Your task to perform on an android device: Search for the new ikea dresser Image 0: 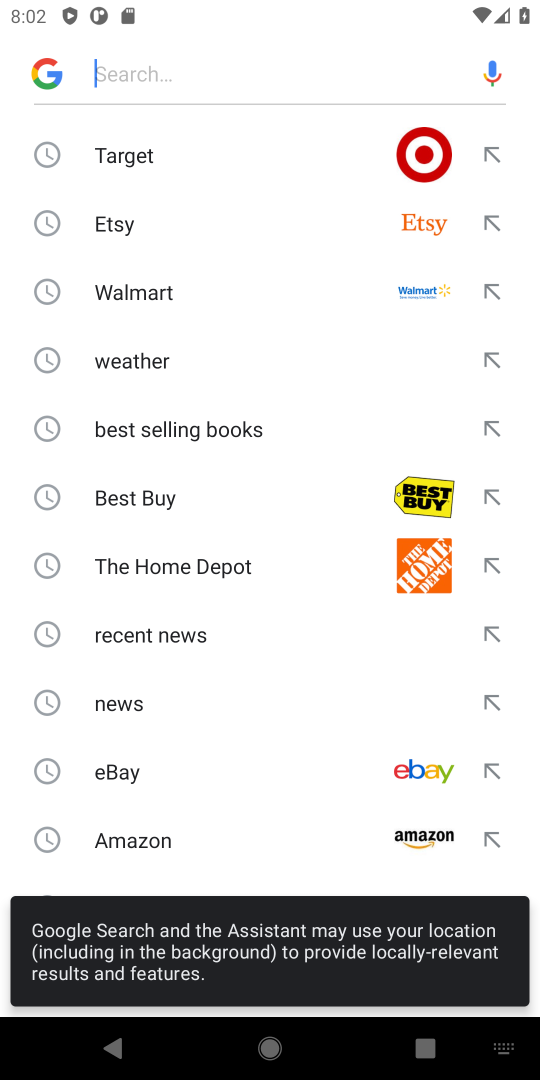
Step 0: press home button
Your task to perform on an android device: Search for the new ikea dresser Image 1: 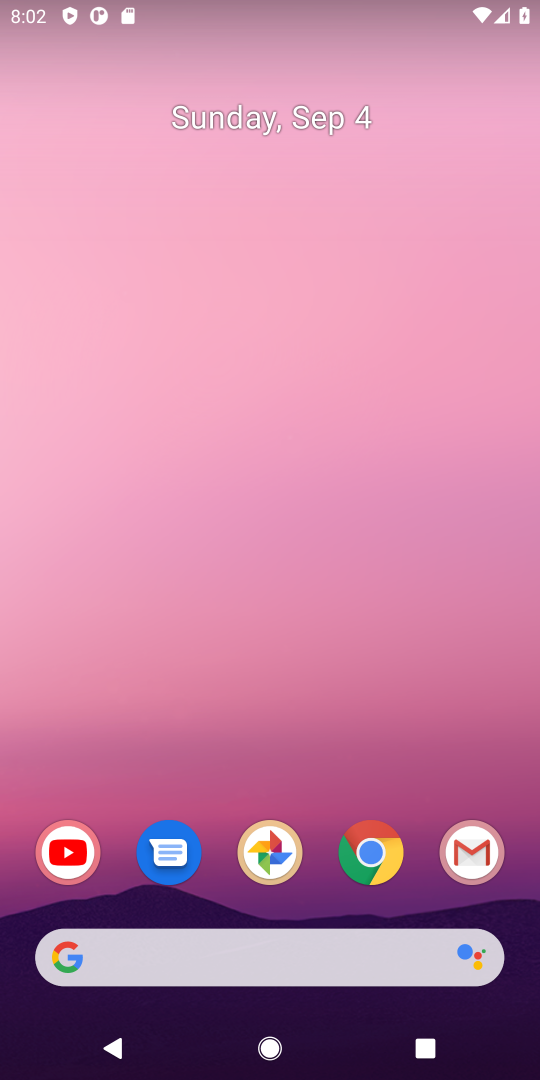
Step 1: drag from (330, 693) to (217, 144)
Your task to perform on an android device: Search for the new ikea dresser Image 2: 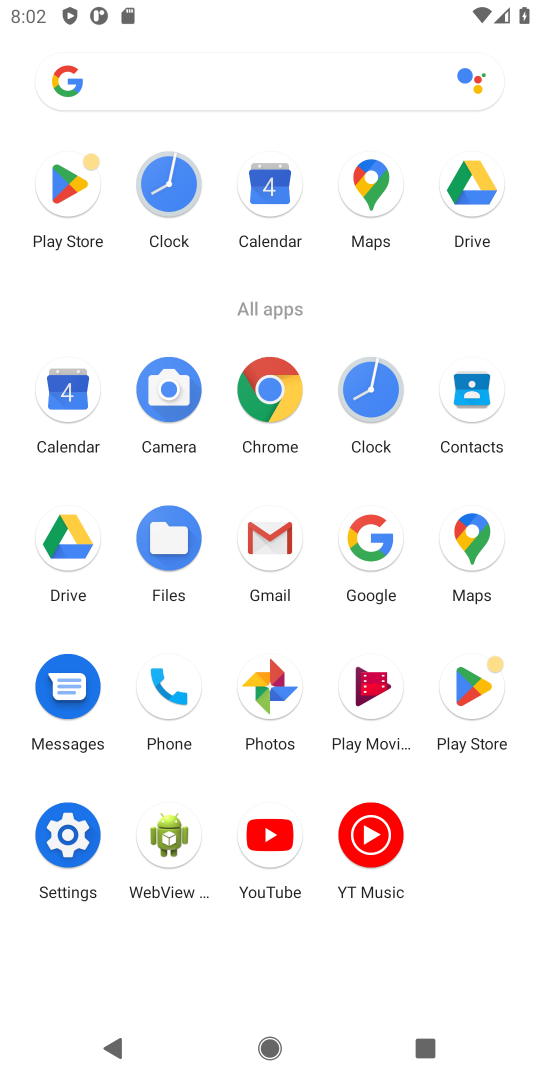
Step 2: click (368, 530)
Your task to perform on an android device: Search for the new ikea dresser Image 3: 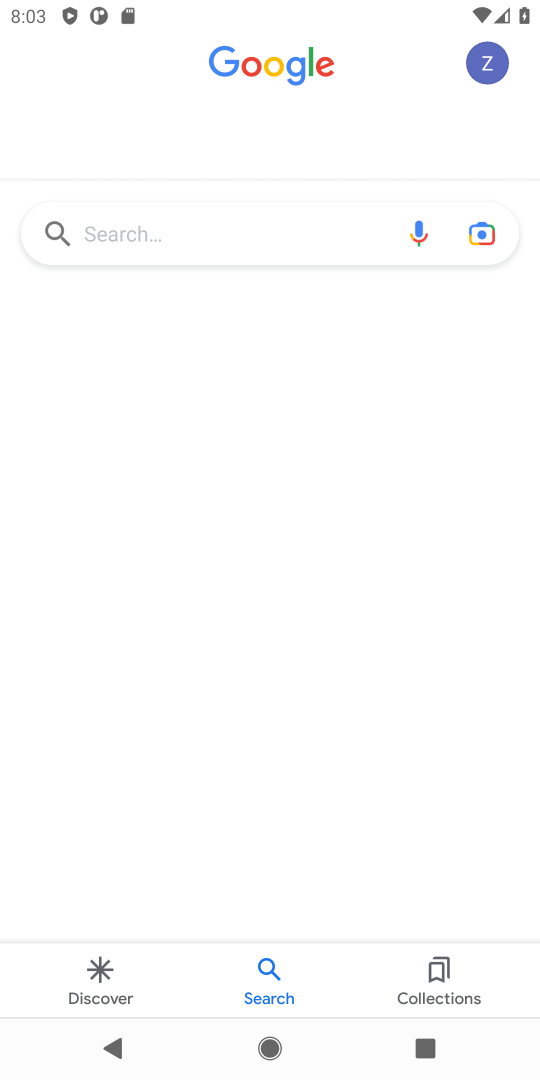
Step 3: click (204, 247)
Your task to perform on an android device: Search for the new ikea dresser Image 4: 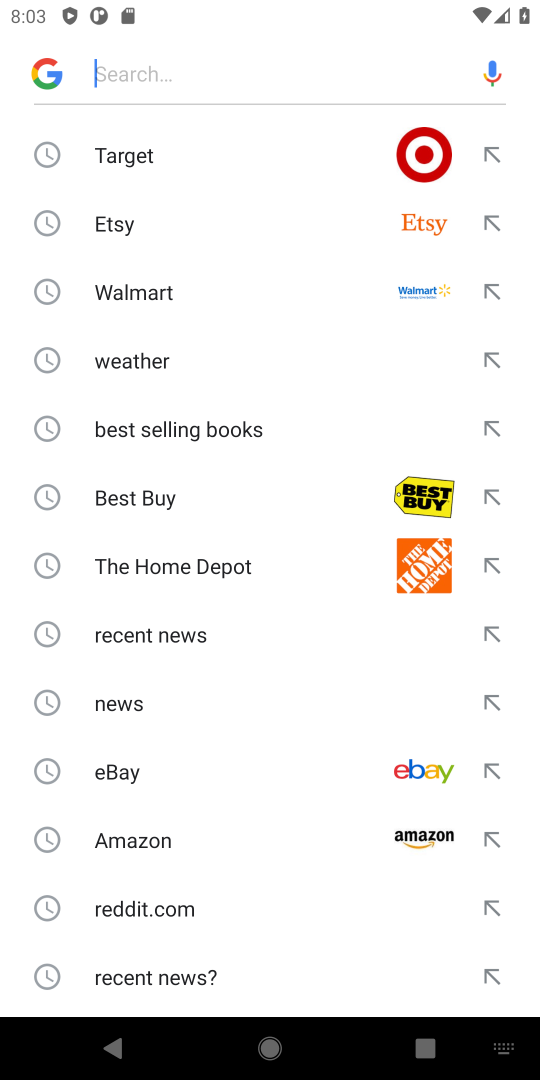
Step 4: task complete